Your task to perform on an android device: turn smart compose on in the gmail app Image 0: 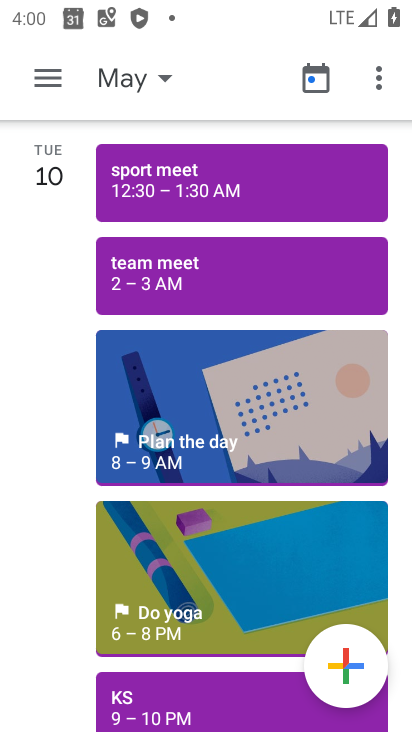
Step 0: press back button
Your task to perform on an android device: turn smart compose on in the gmail app Image 1: 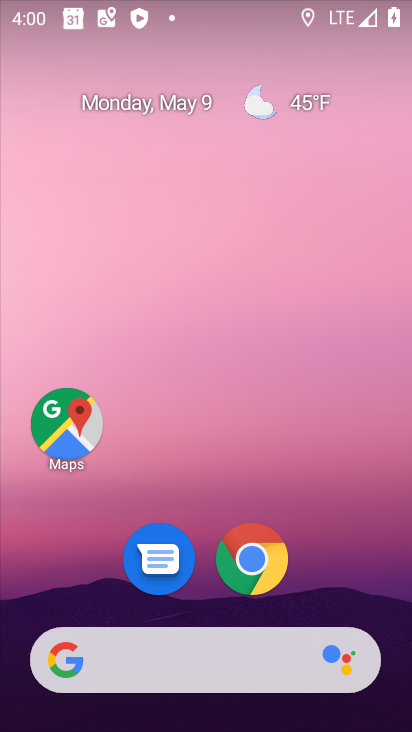
Step 1: drag from (210, 452) to (195, 1)
Your task to perform on an android device: turn smart compose on in the gmail app Image 2: 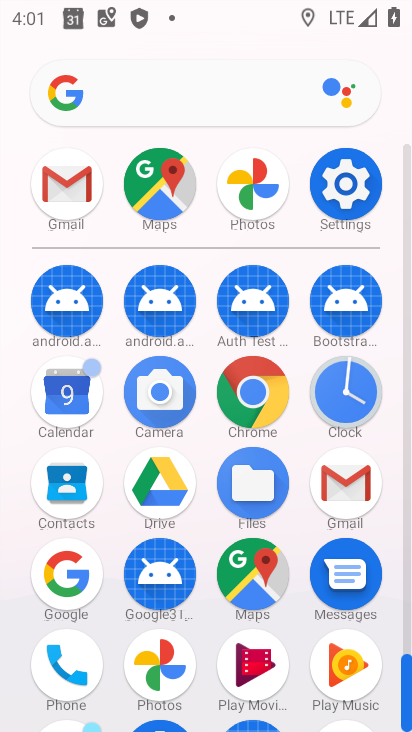
Step 2: click (70, 177)
Your task to perform on an android device: turn smart compose on in the gmail app Image 3: 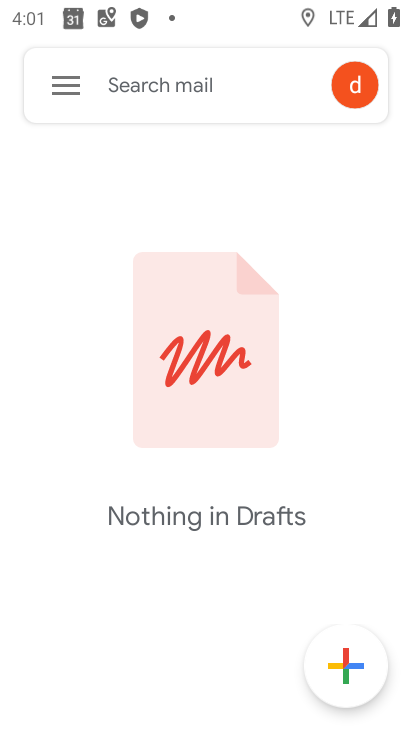
Step 3: click (71, 83)
Your task to perform on an android device: turn smart compose on in the gmail app Image 4: 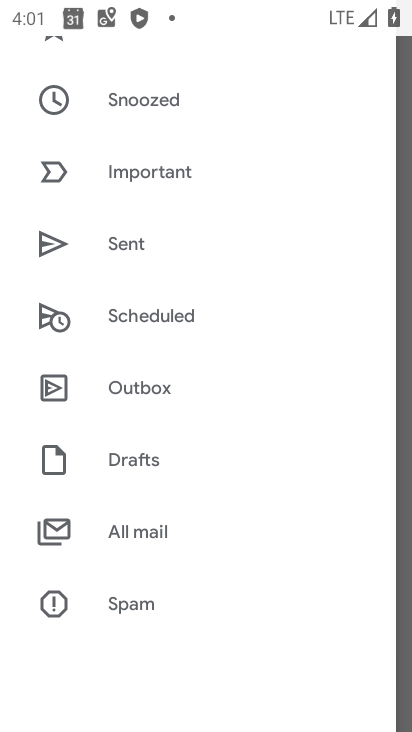
Step 4: drag from (195, 568) to (245, 355)
Your task to perform on an android device: turn smart compose on in the gmail app Image 5: 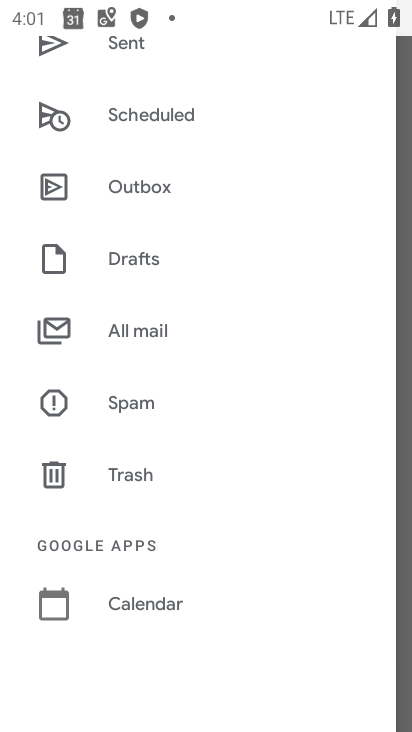
Step 5: drag from (181, 544) to (209, 392)
Your task to perform on an android device: turn smart compose on in the gmail app Image 6: 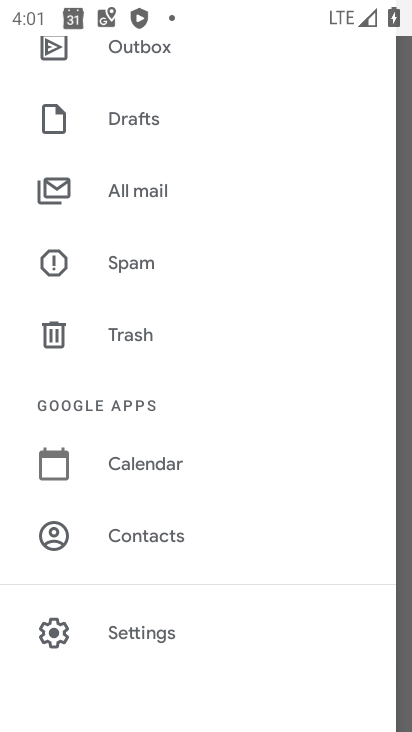
Step 6: drag from (190, 538) to (193, 441)
Your task to perform on an android device: turn smart compose on in the gmail app Image 7: 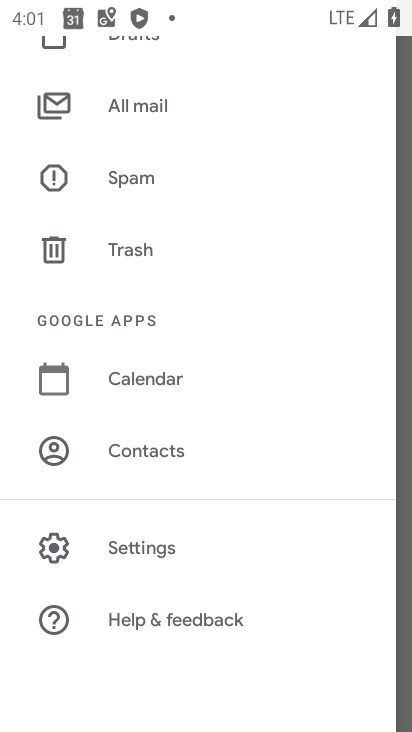
Step 7: click (141, 541)
Your task to perform on an android device: turn smart compose on in the gmail app Image 8: 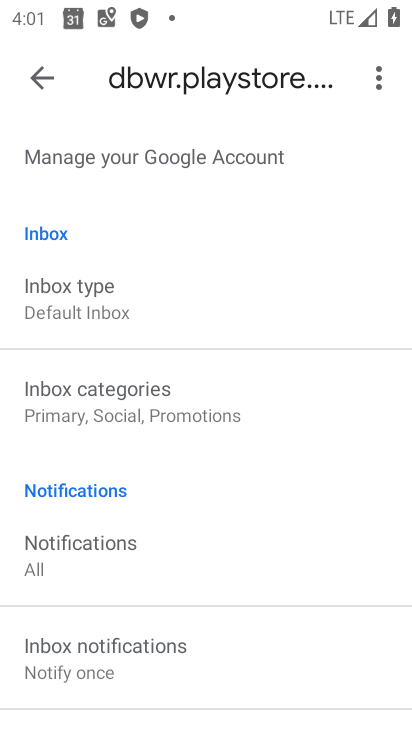
Step 8: task complete